Your task to perform on an android device: Open calendar and show me the fourth week of next month Image 0: 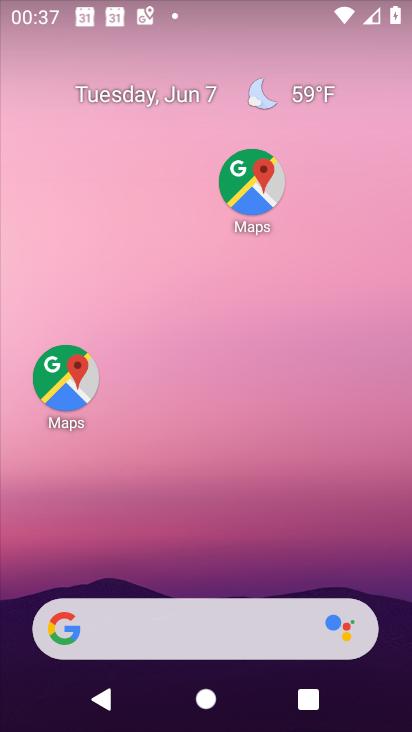
Step 0: drag from (227, 471) to (244, 132)
Your task to perform on an android device: Open calendar and show me the fourth week of next month Image 1: 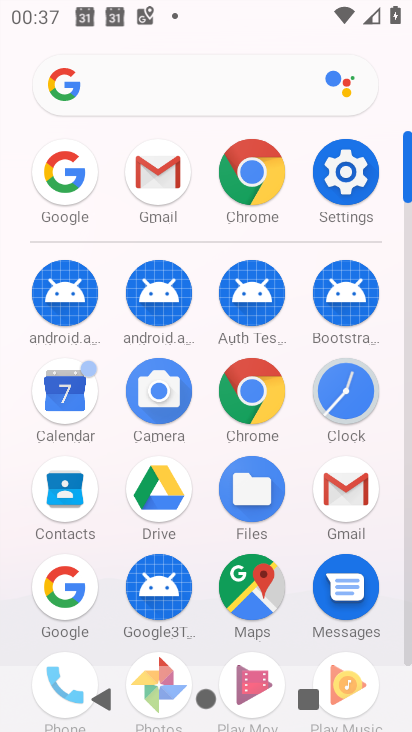
Step 1: click (62, 399)
Your task to perform on an android device: Open calendar and show me the fourth week of next month Image 2: 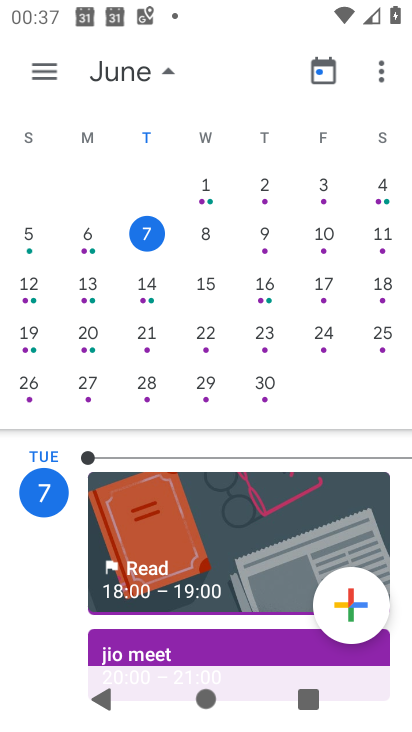
Step 2: click (7, 386)
Your task to perform on an android device: Open calendar and show me the fourth week of next month Image 3: 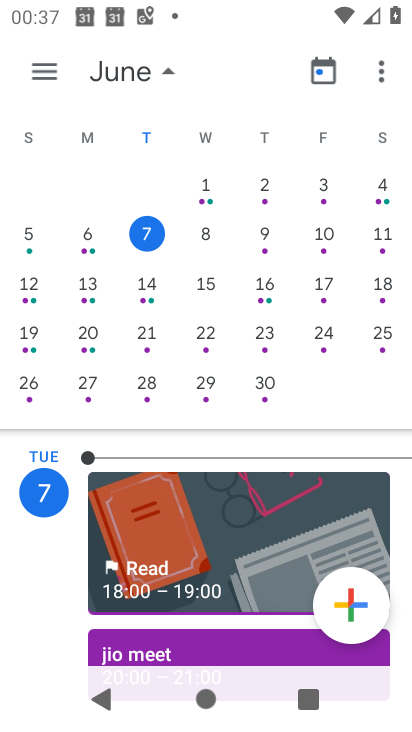
Step 3: drag from (370, 393) to (70, 366)
Your task to perform on an android device: Open calendar and show me the fourth week of next month Image 4: 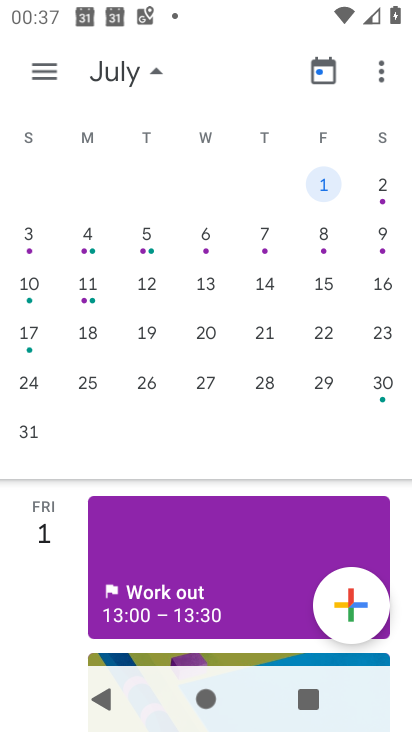
Step 4: click (264, 339)
Your task to perform on an android device: Open calendar and show me the fourth week of next month Image 5: 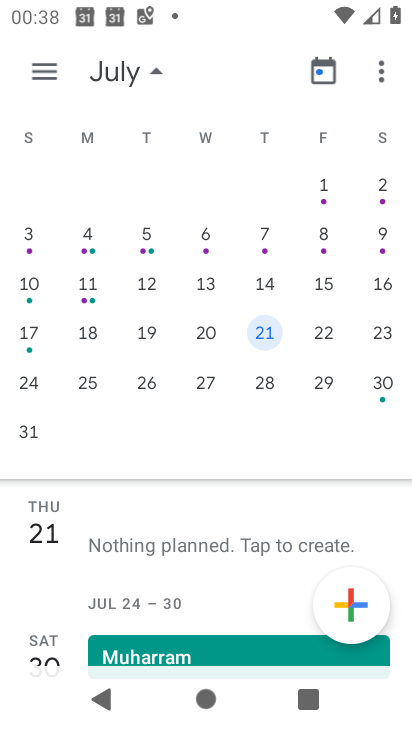
Step 5: task complete